Your task to perform on an android device: turn on showing notifications on the lock screen Image 0: 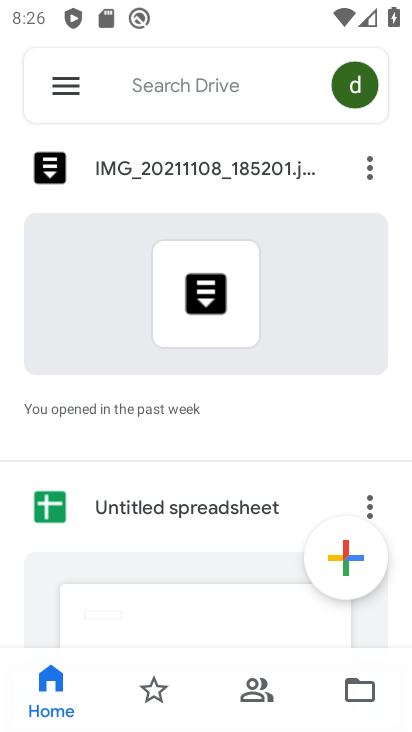
Step 0: press home button
Your task to perform on an android device: turn on showing notifications on the lock screen Image 1: 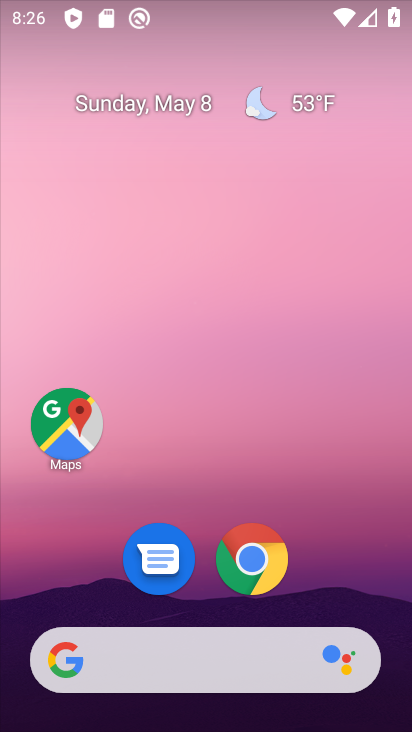
Step 1: drag from (198, 597) to (266, 273)
Your task to perform on an android device: turn on showing notifications on the lock screen Image 2: 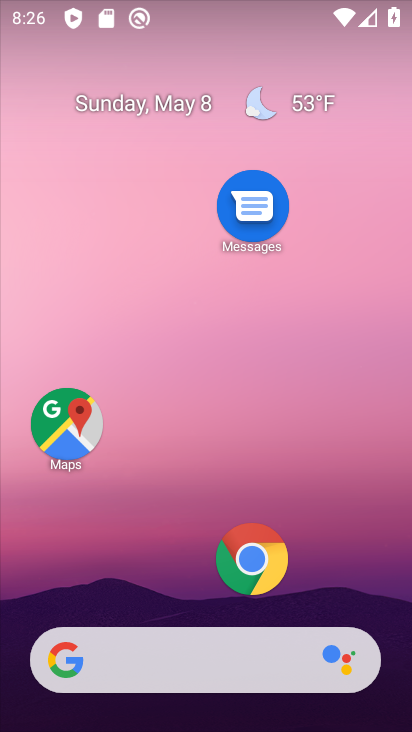
Step 2: drag from (200, 553) to (235, 98)
Your task to perform on an android device: turn on showing notifications on the lock screen Image 3: 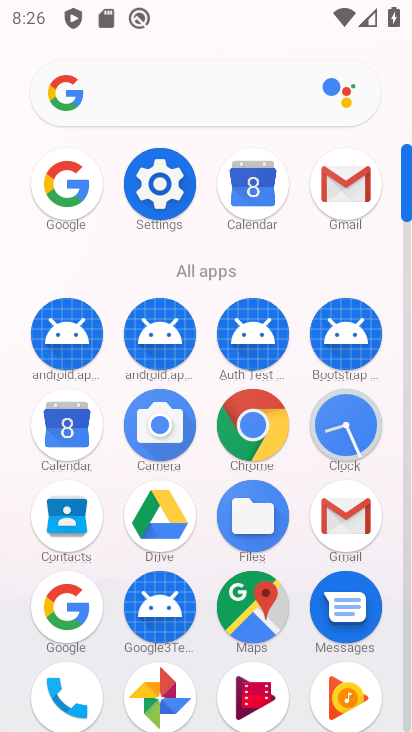
Step 3: click (161, 186)
Your task to perform on an android device: turn on showing notifications on the lock screen Image 4: 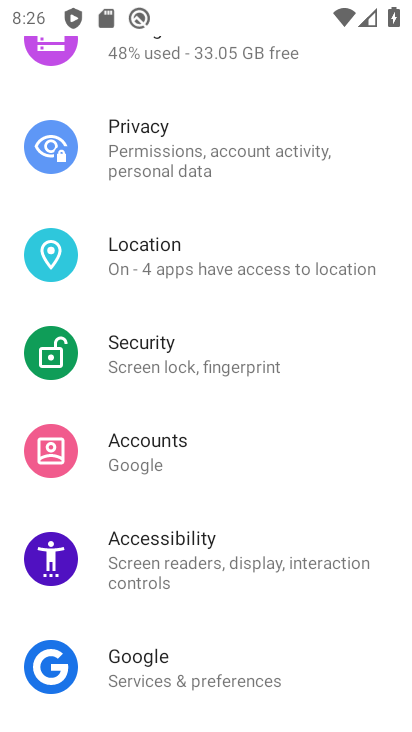
Step 4: drag from (241, 469) to (250, 646)
Your task to perform on an android device: turn on showing notifications on the lock screen Image 5: 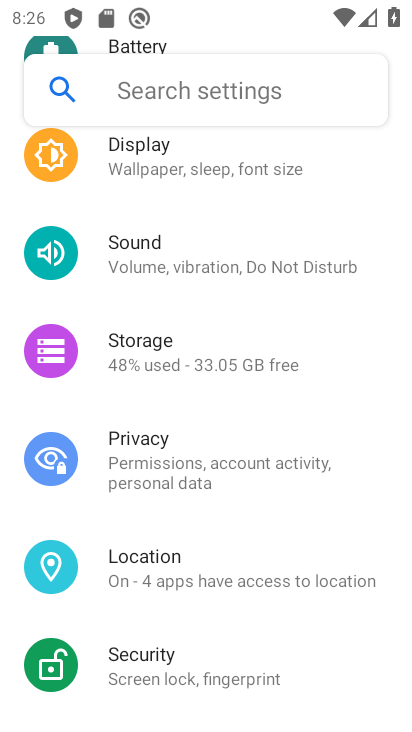
Step 5: drag from (216, 224) to (326, 576)
Your task to perform on an android device: turn on showing notifications on the lock screen Image 6: 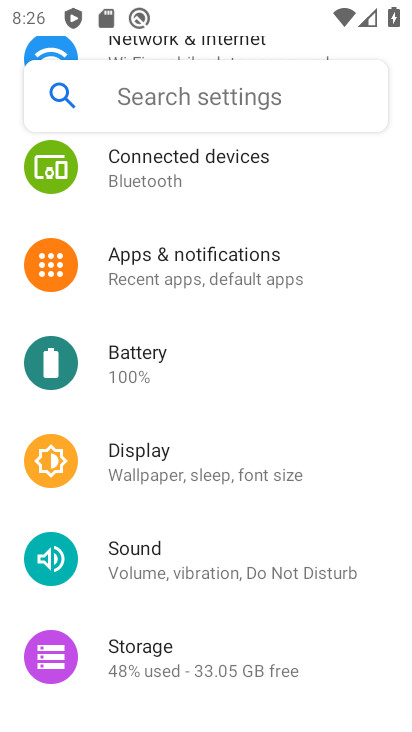
Step 6: click (173, 270)
Your task to perform on an android device: turn on showing notifications on the lock screen Image 7: 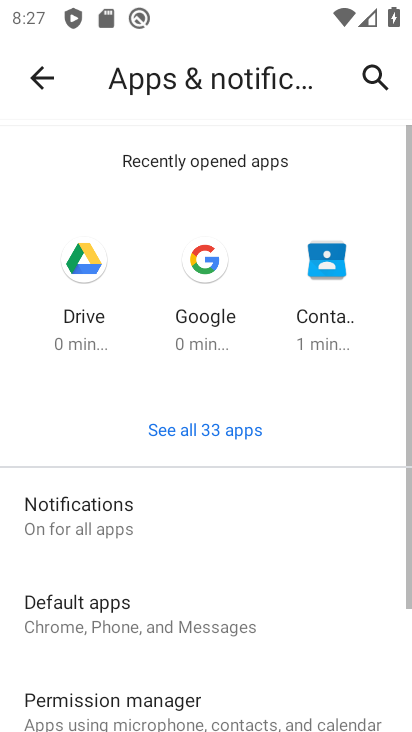
Step 7: click (122, 518)
Your task to perform on an android device: turn on showing notifications on the lock screen Image 8: 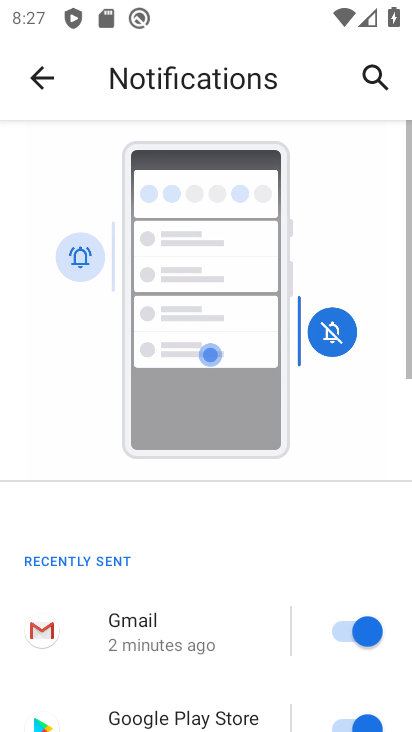
Step 8: drag from (221, 624) to (267, 20)
Your task to perform on an android device: turn on showing notifications on the lock screen Image 9: 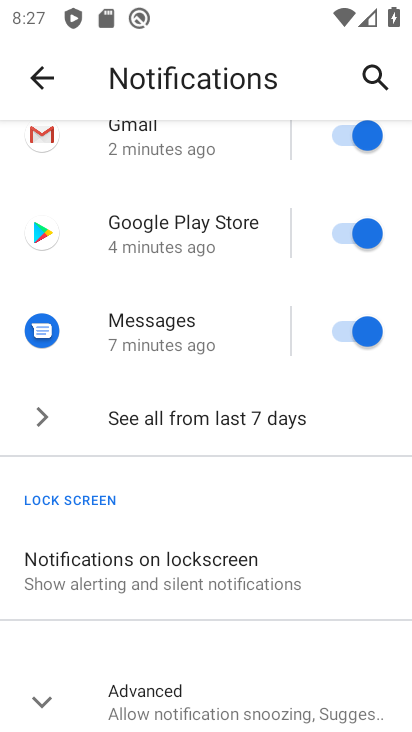
Step 9: click (145, 561)
Your task to perform on an android device: turn on showing notifications on the lock screen Image 10: 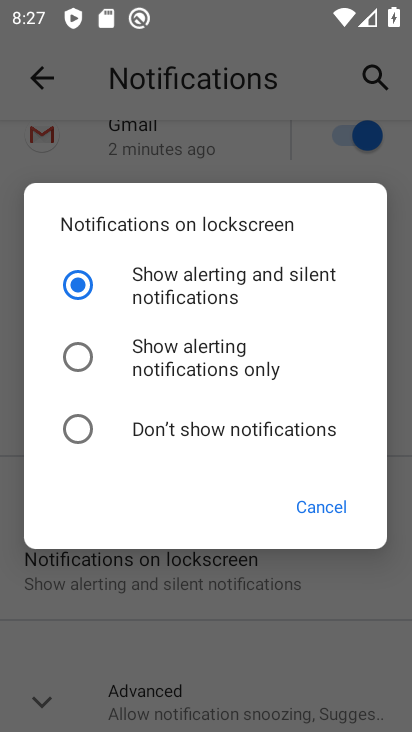
Step 10: task complete